Your task to perform on an android device: toggle javascript in the chrome app Image 0: 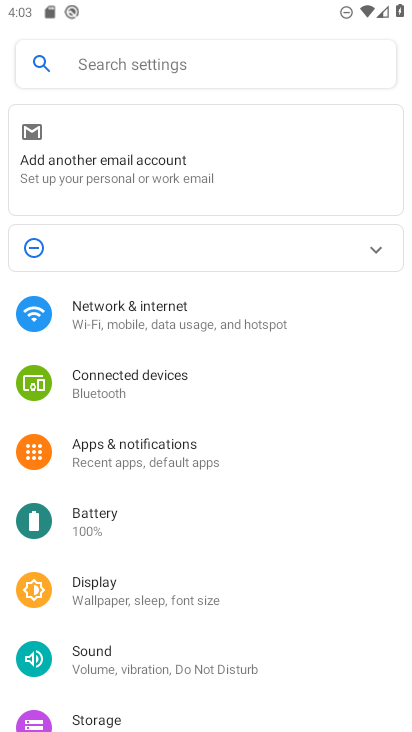
Step 0: press home button
Your task to perform on an android device: toggle javascript in the chrome app Image 1: 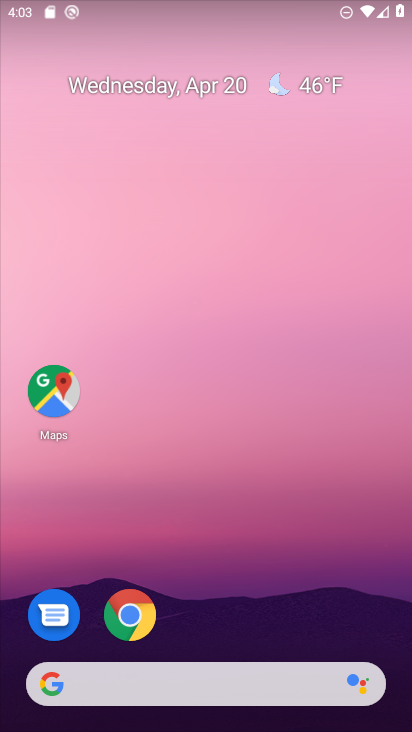
Step 1: drag from (186, 598) to (332, 49)
Your task to perform on an android device: toggle javascript in the chrome app Image 2: 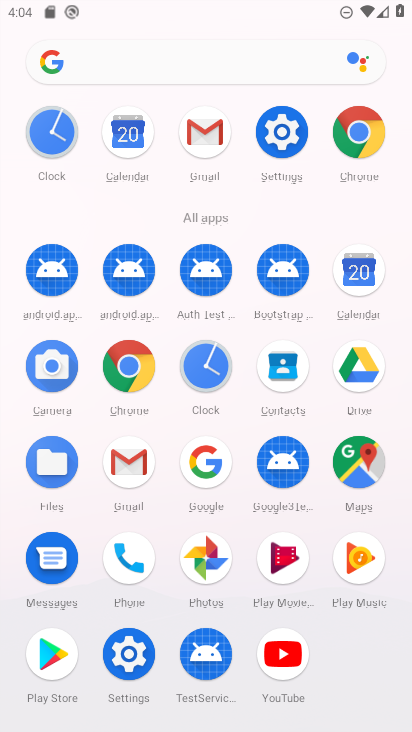
Step 2: click (143, 367)
Your task to perform on an android device: toggle javascript in the chrome app Image 3: 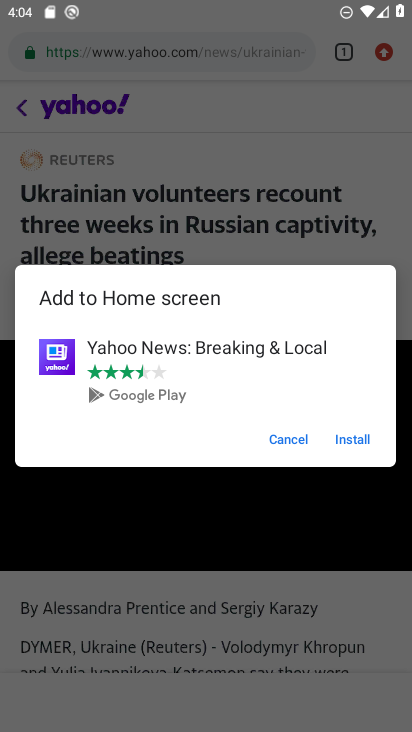
Step 3: click (278, 444)
Your task to perform on an android device: toggle javascript in the chrome app Image 4: 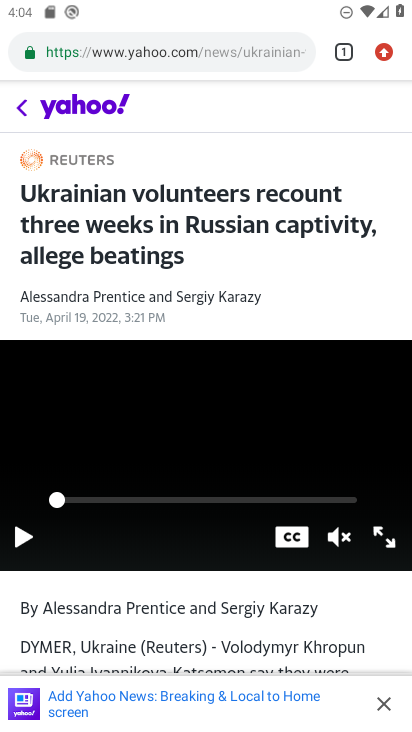
Step 4: click (383, 48)
Your task to perform on an android device: toggle javascript in the chrome app Image 5: 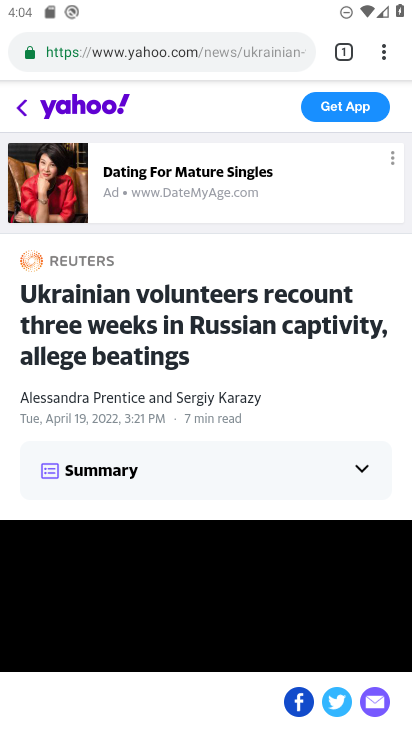
Step 5: drag from (387, 52) to (234, 670)
Your task to perform on an android device: toggle javascript in the chrome app Image 6: 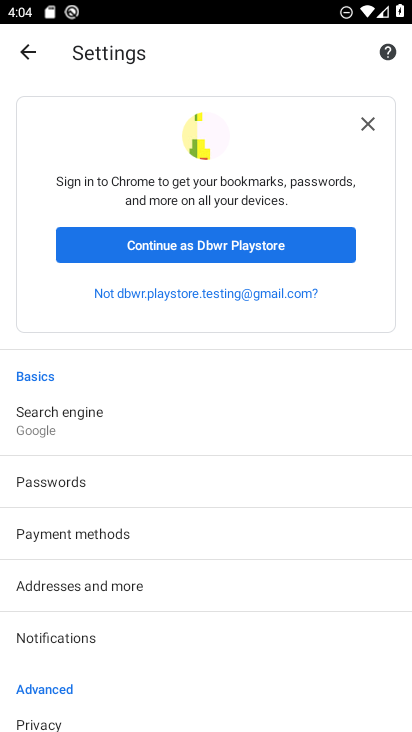
Step 6: drag from (237, 573) to (335, 347)
Your task to perform on an android device: toggle javascript in the chrome app Image 7: 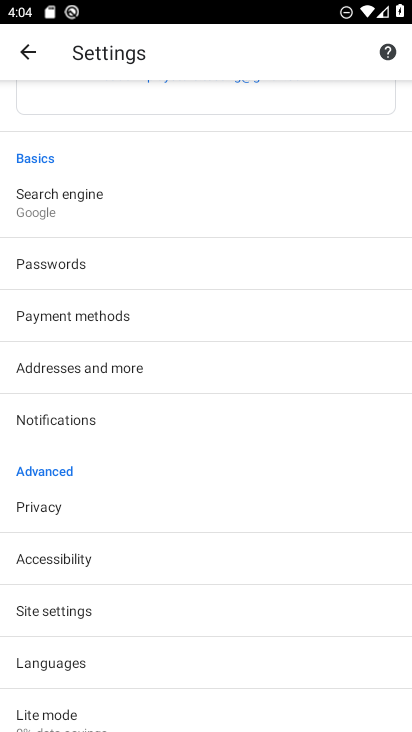
Step 7: drag from (203, 596) to (279, 278)
Your task to perform on an android device: toggle javascript in the chrome app Image 8: 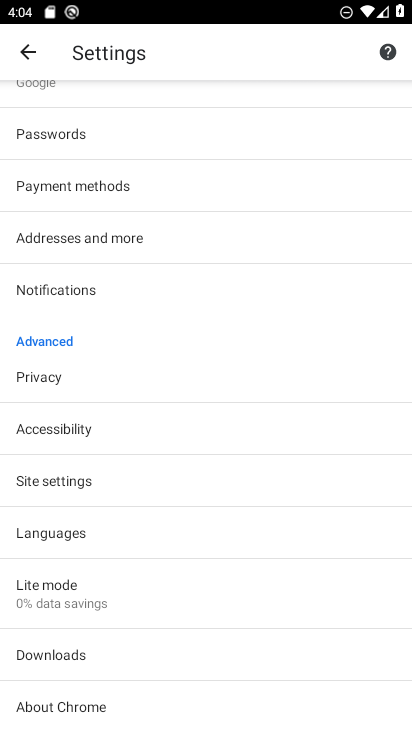
Step 8: click (73, 481)
Your task to perform on an android device: toggle javascript in the chrome app Image 9: 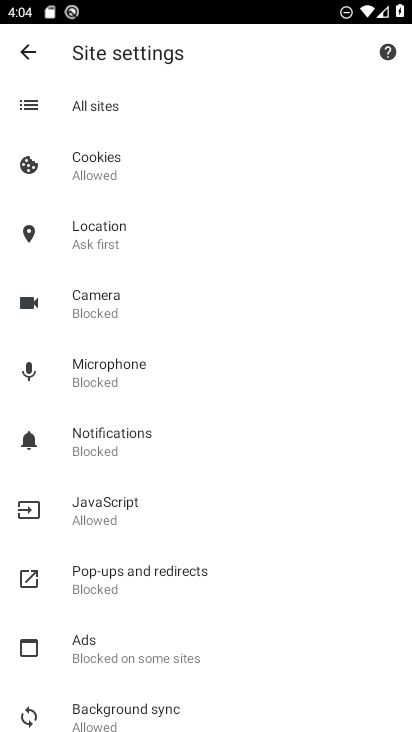
Step 9: click (102, 512)
Your task to perform on an android device: toggle javascript in the chrome app Image 10: 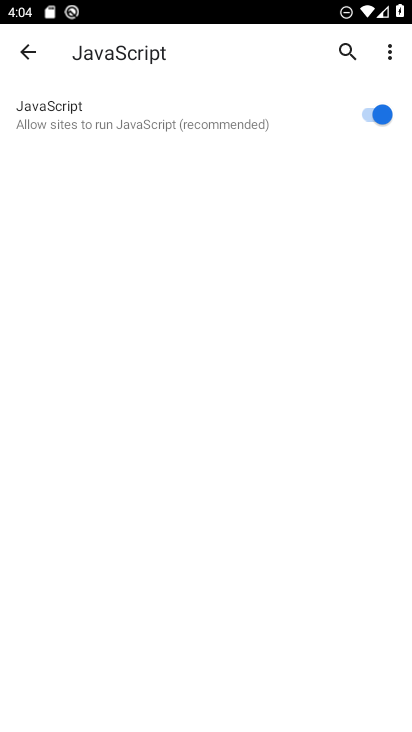
Step 10: click (372, 115)
Your task to perform on an android device: toggle javascript in the chrome app Image 11: 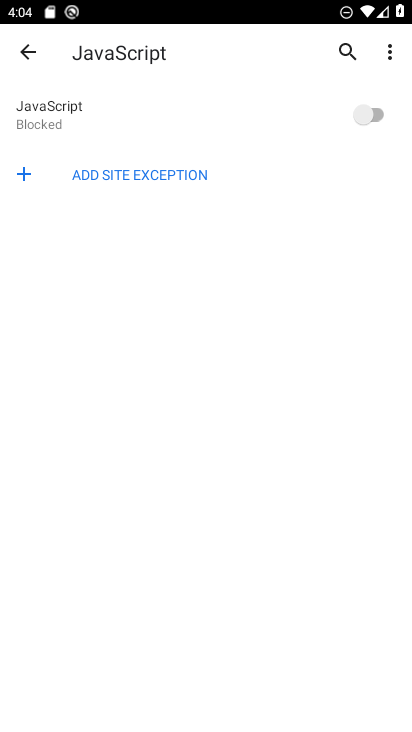
Step 11: task complete